Your task to perform on an android device: Open Chrome and go to settings Image 0: 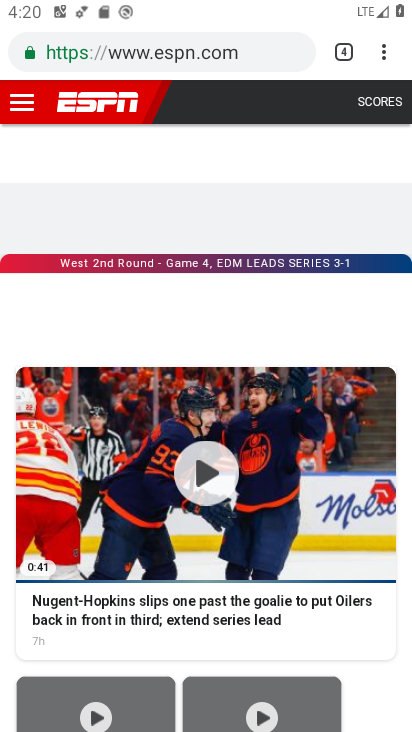
Step 0: press home button
Your task to perform on an android device: Open Chrome and go to settings Image 1: 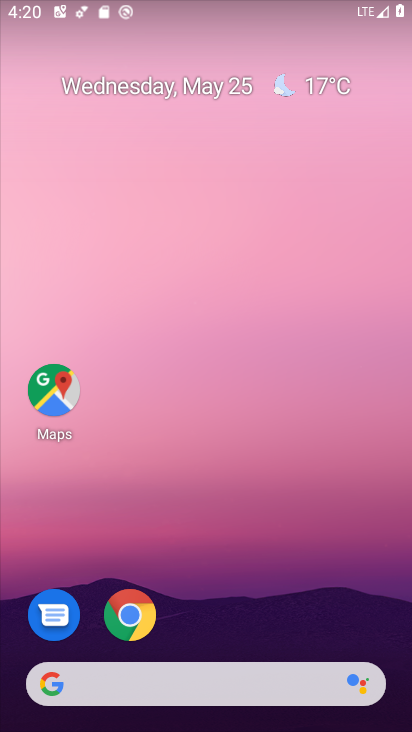
Step 1: click (138, 622)
Your task to perform on an android device: Open Chrome and go to settings Image 2: 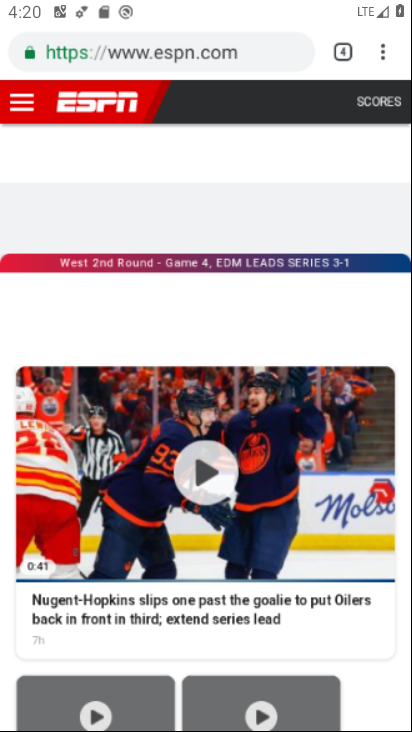
Step 2: click (384, 48)
Your task to perform on an android device: Open Chrome and go to settings Image 3: 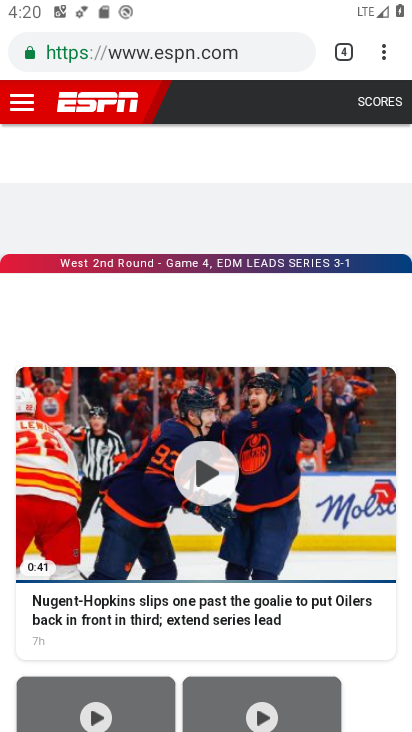
Step 3: click (382, 33)
Your task to perform on an android device: Open Chrome and go to settings Image 4: 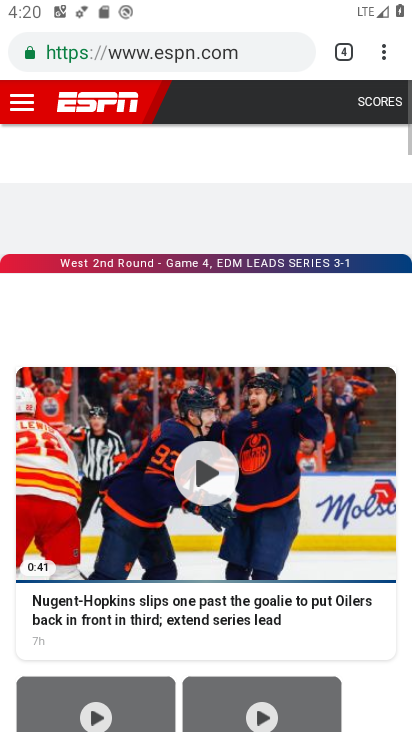
Step 4: click (379, 38)
Your task to perform on an android device: Open Chrome and go to settings Image 5: 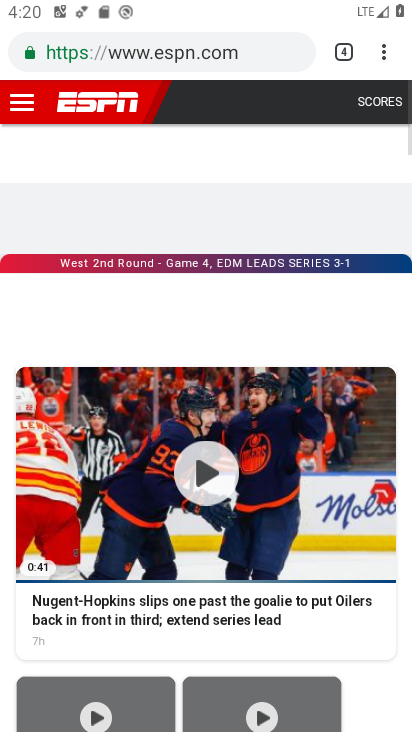
Step 5: click (371, 65)
Your task to perform on an android device: Open Chrome and go to settings Image 6: 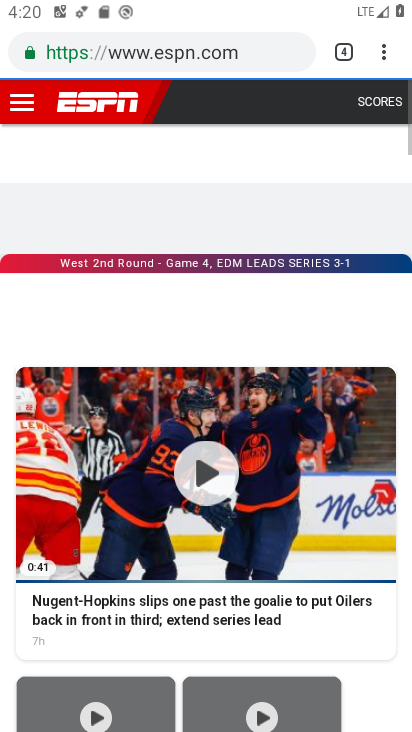
Step 6: click (377, 58)
Your task to perform on an android device: Open Chrome and go to settings Image 7: 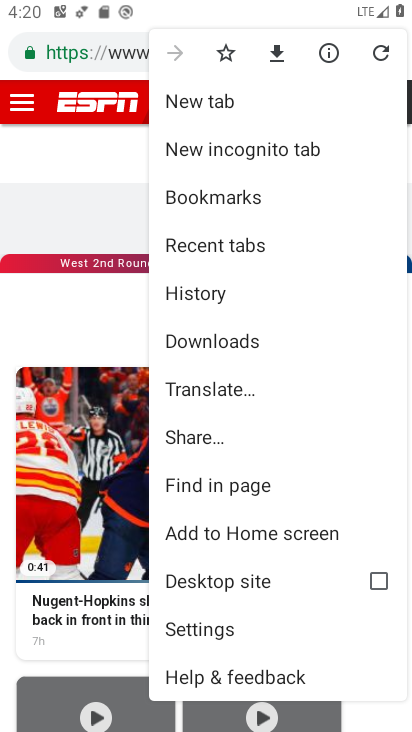
Step 7: click (219, 627)
Your task to perform on an android device: Open Chrome and go to settings Image 8: 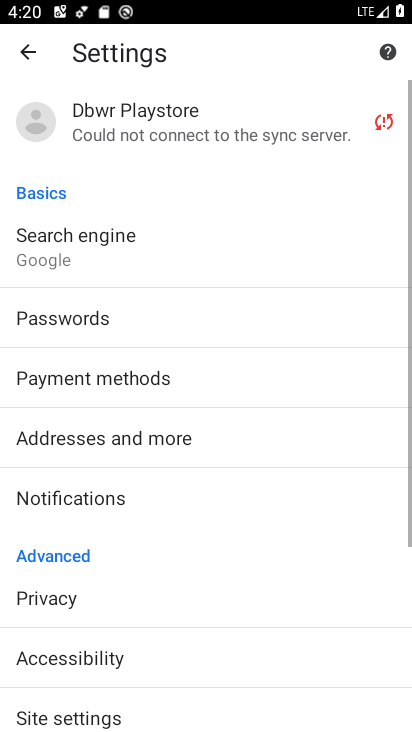
Step 8: task complete